Your task to perform on an android device: turn on airplane mode Image 0: 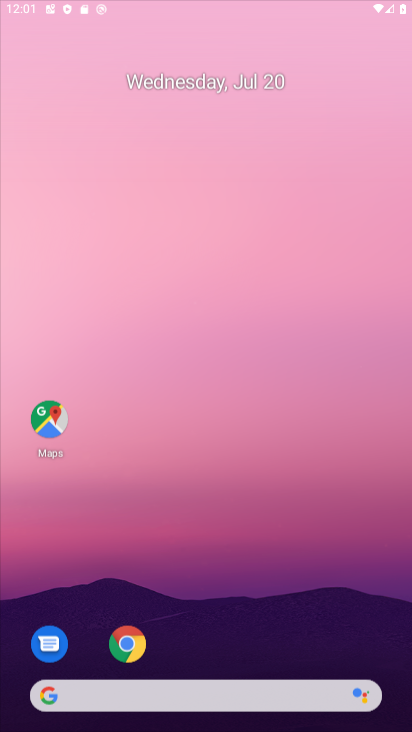
Step 0: press home button
Your task to perform on an android device: turn on airplane mode Image 1: 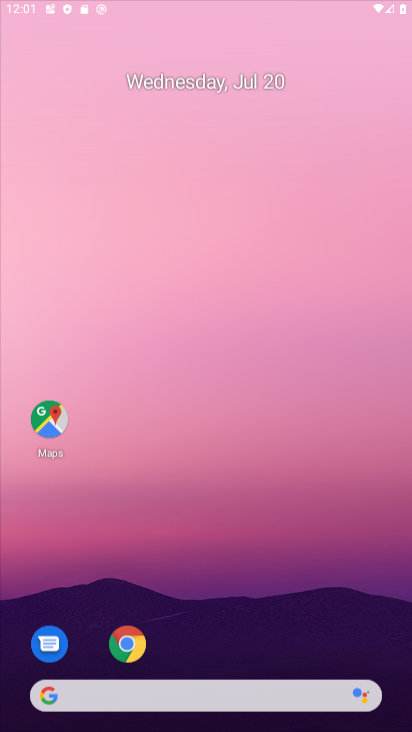
Step 1: click (292, 46)
Your task to perform on an android device: turn on airplane mode Image 2: 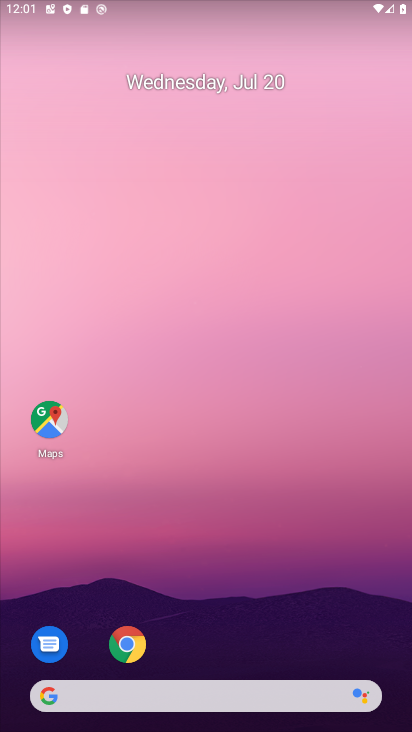
Step 2: drag from (255, 604) to (205, 91)
Your task to perform on an android device: turn on airplane mode Image 3: 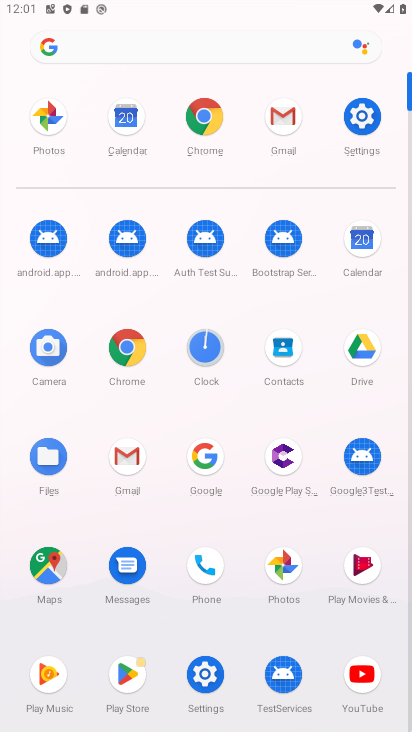
Step 3: drag from (346, 8) to (321, 446)
Your task to perform on an android device: turn on airplane mode Image 4: 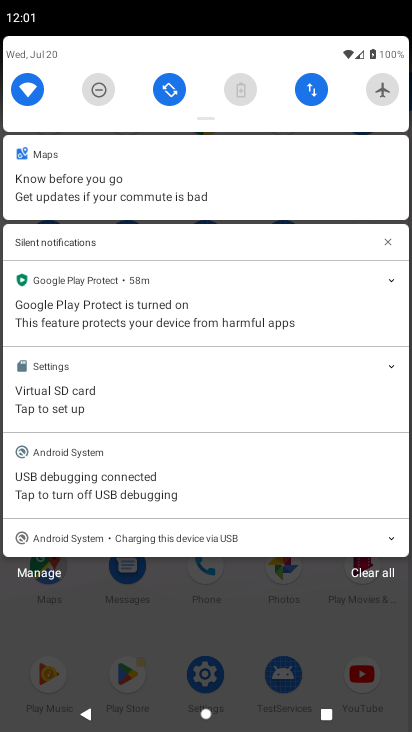
Step 4: click (376, 93)
Your task to perform on an android device: turn on airplane mode Image 5: 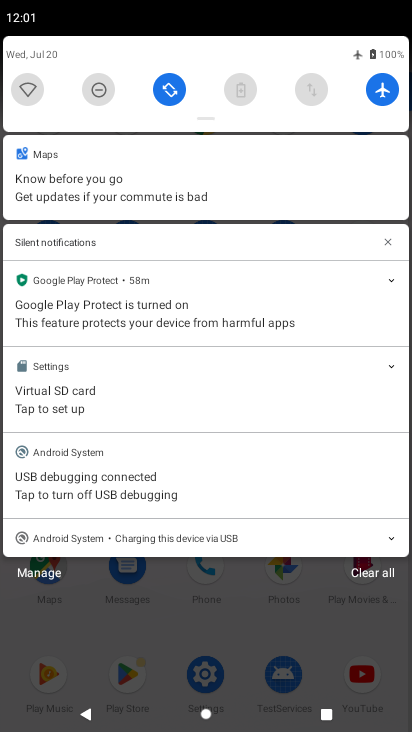
Step 5: task complete